Your task to perform on an android device: allow cookies in the chrome app Image 0: 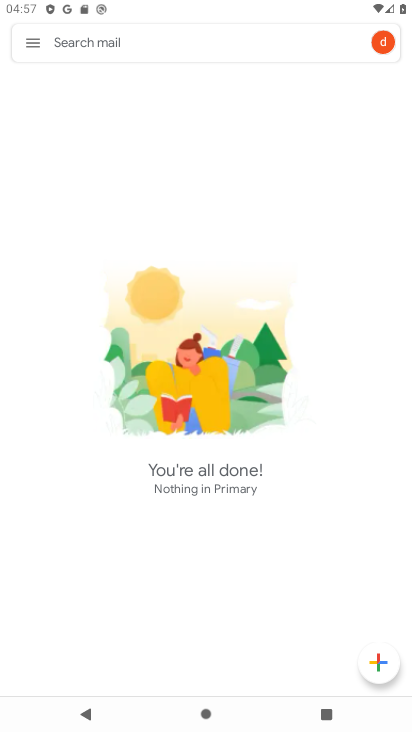
Step 0: press home button
Your task to perform on an android device: allow cookies in the chrome app Image 1: 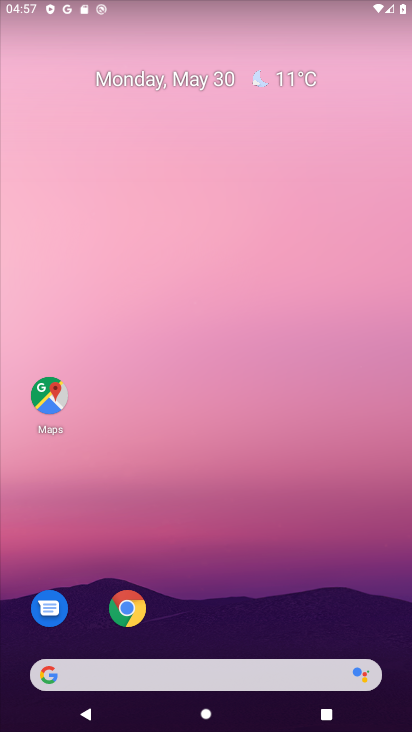
Step 1: click (140, 607)
Your task to perform on an android device: allow cookies in the chrome app Image 2: 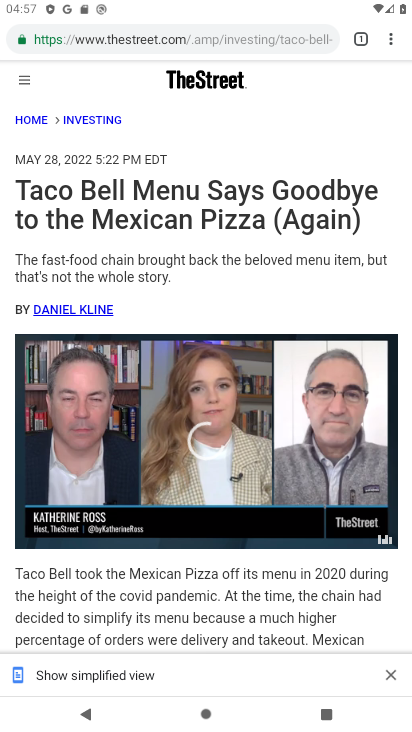
Step 2: click (398, 36)
Your task to perform on an android device: allow cookies in the chrome app Image 3: 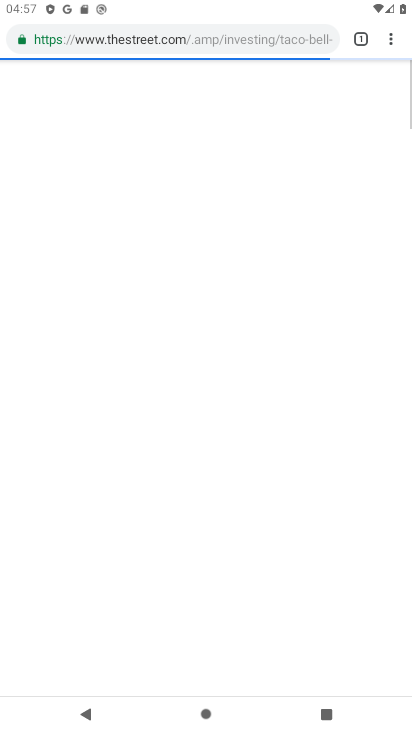
Step 3: click (391, 36)
Your task to perform on an android device: allow cookies in the chrome app Image 4: 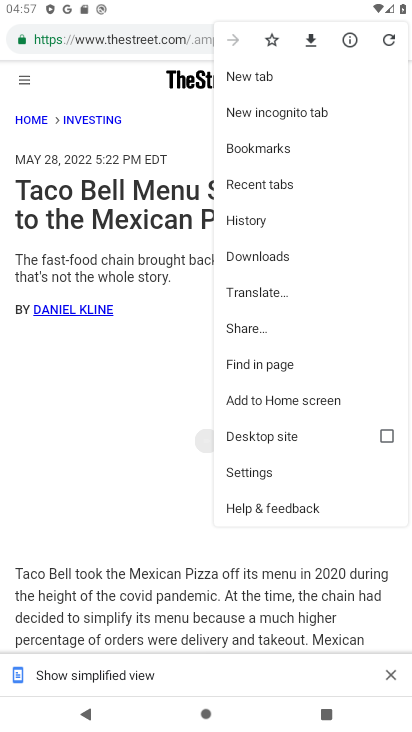
Step 4: click (250, 466)
Your task to perform on an android device: allow cookies in the chrome app Image 5: 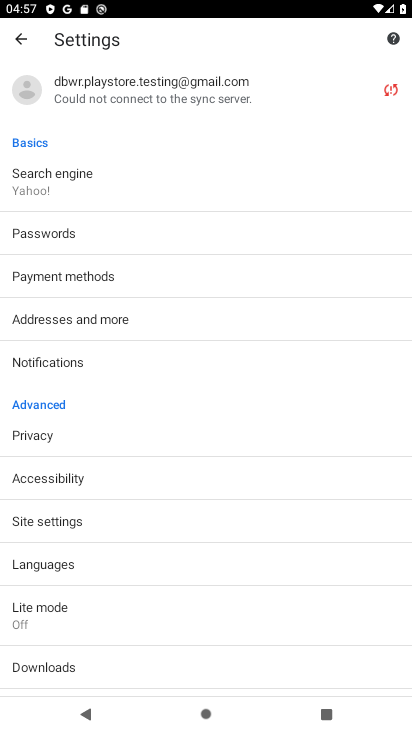
Step 5: click (53, 521)
Your task to perform on an android device: allow cookies in the chrome app Image 6: 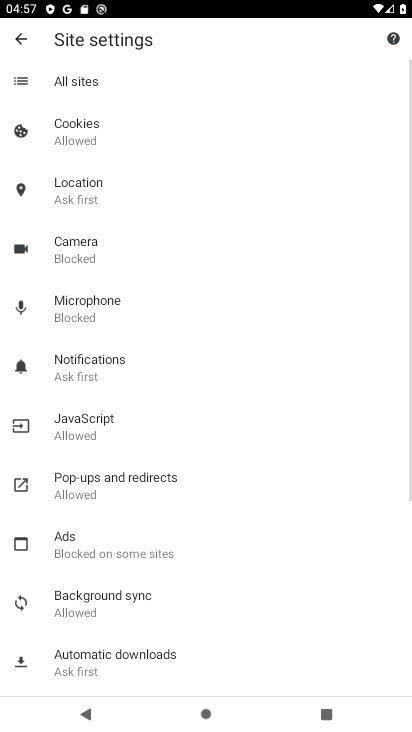
Step 6: click (69, 144)
Your task to perform on an android device: allow cookies in the chrome app Image 7: 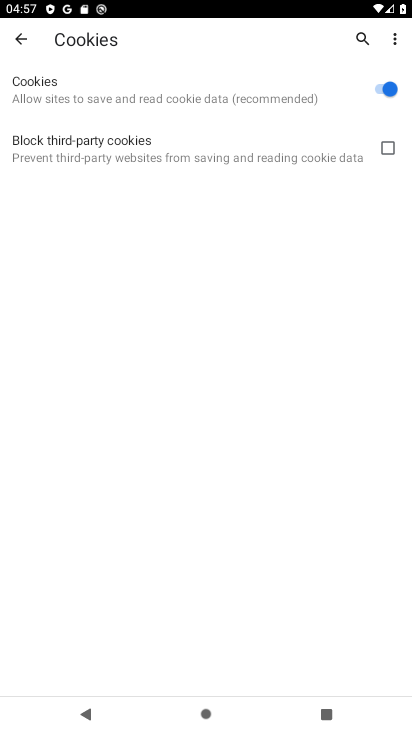
Step 7: task complete